Your task to perform on an android device: Open CNN.com Image 0: 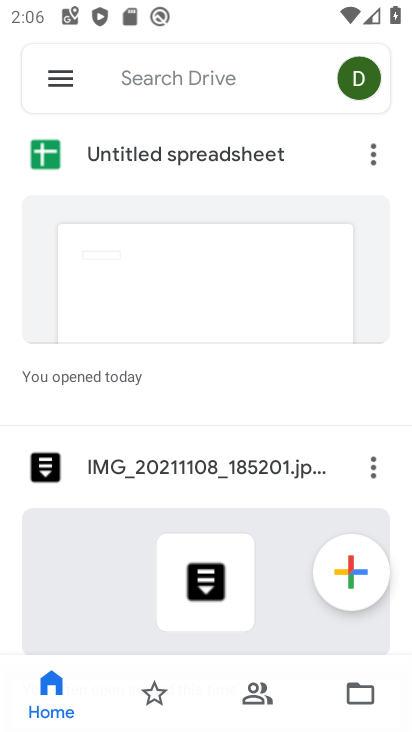
Step 0: press home button
Your task to perform on an android device: Open CNN.com Image 1: 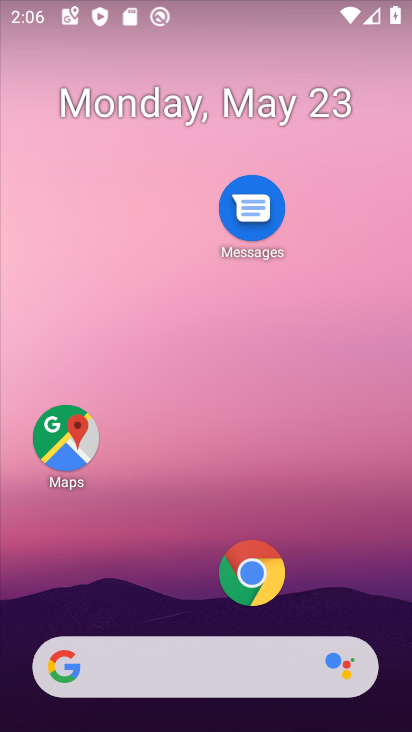
Step 1: drag from (306, 610) to (373, 7)
Your task to perform on an android device: Open CNN.com Image 2: 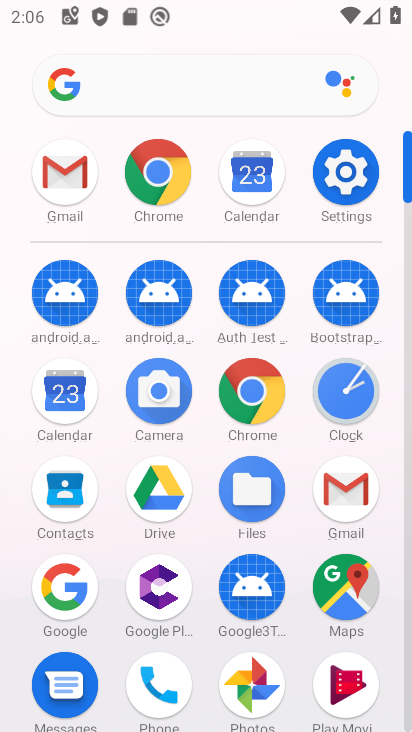
Step 2: click (236, 366)
Your task to perform on an android device: Open CNN.com Image 3: 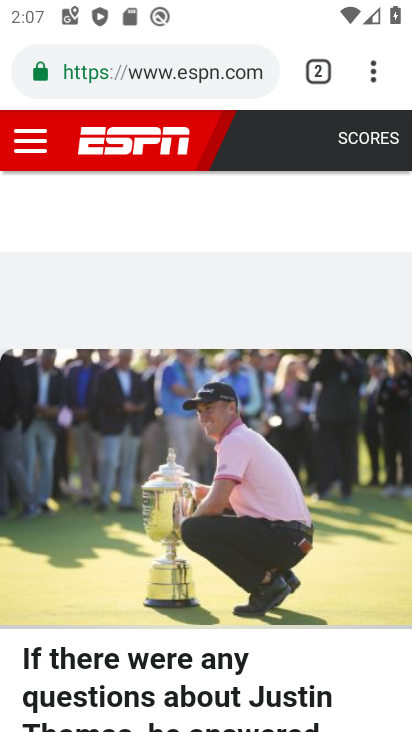
Step 3: type "cnn.com"
Your task to perform on an android device: Open CNN.com Image 4: 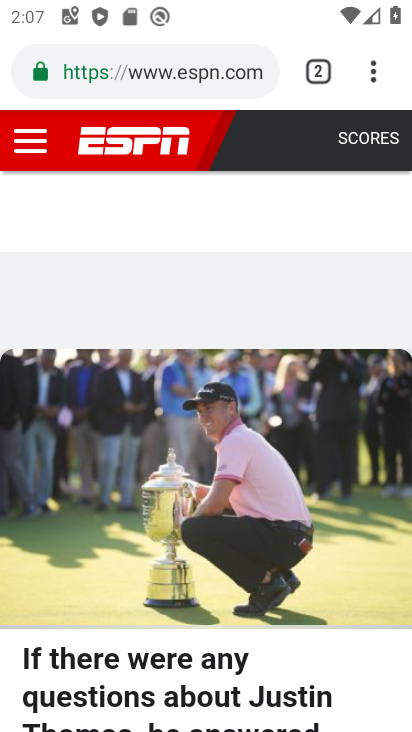
Step 4: click (207, 66)
Your task to perform on an android device: Open CNN.com Image 5: 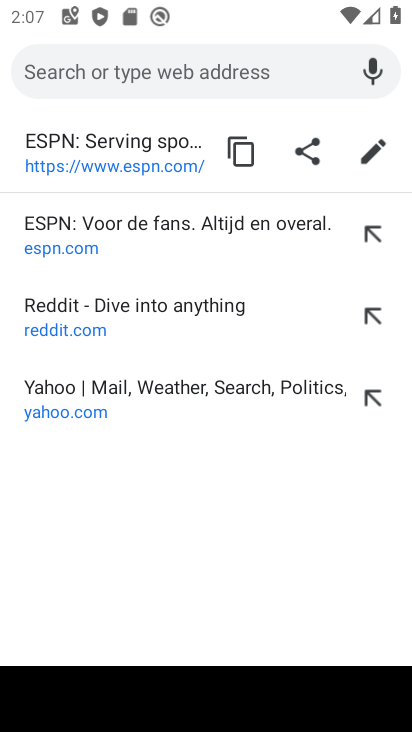
Step 5: type "cnn.com"
Your task to perform on an android device: Open CNN.com Image 6: 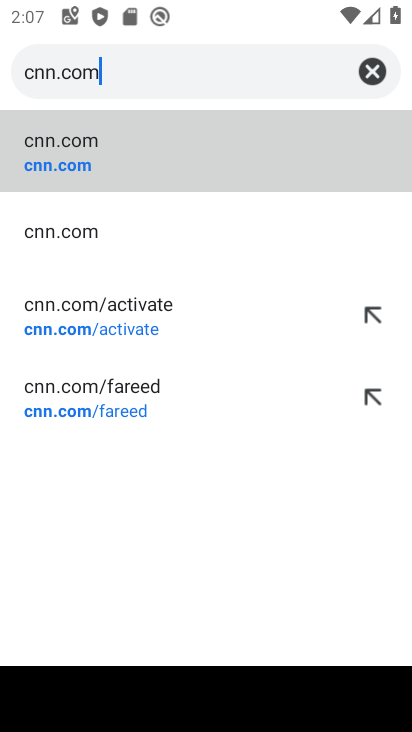
Step 6: click (123, 166)
Your task to perform on an android device: Open CNN.com Image 7: 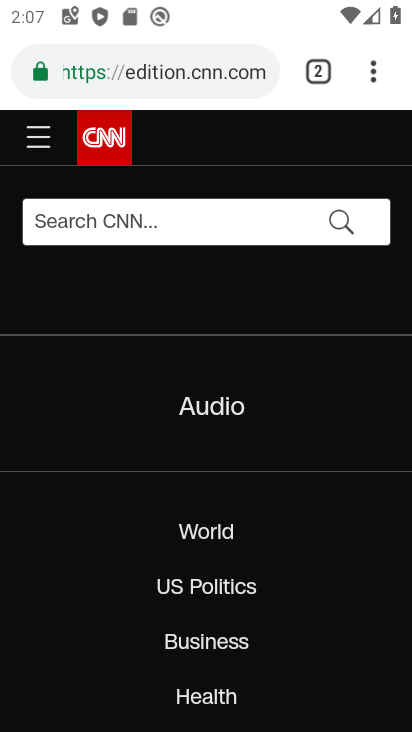
Step 7: task complete